Your task to perform on an android device: install app "Google Sheets" Image 0: 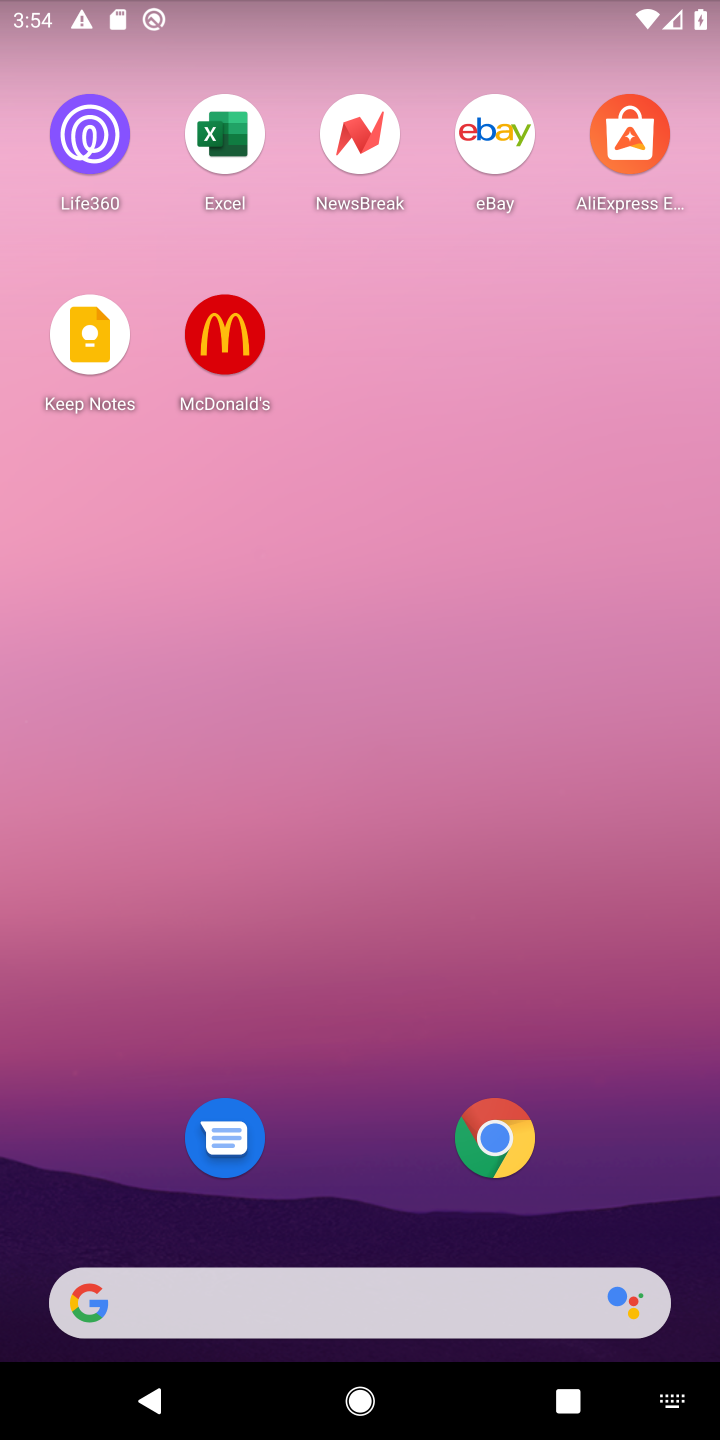
Step 0: drag from (365, 1222) to (352, 11)
Your task to perform on an android device: install app "Google Sheets" Image 1: 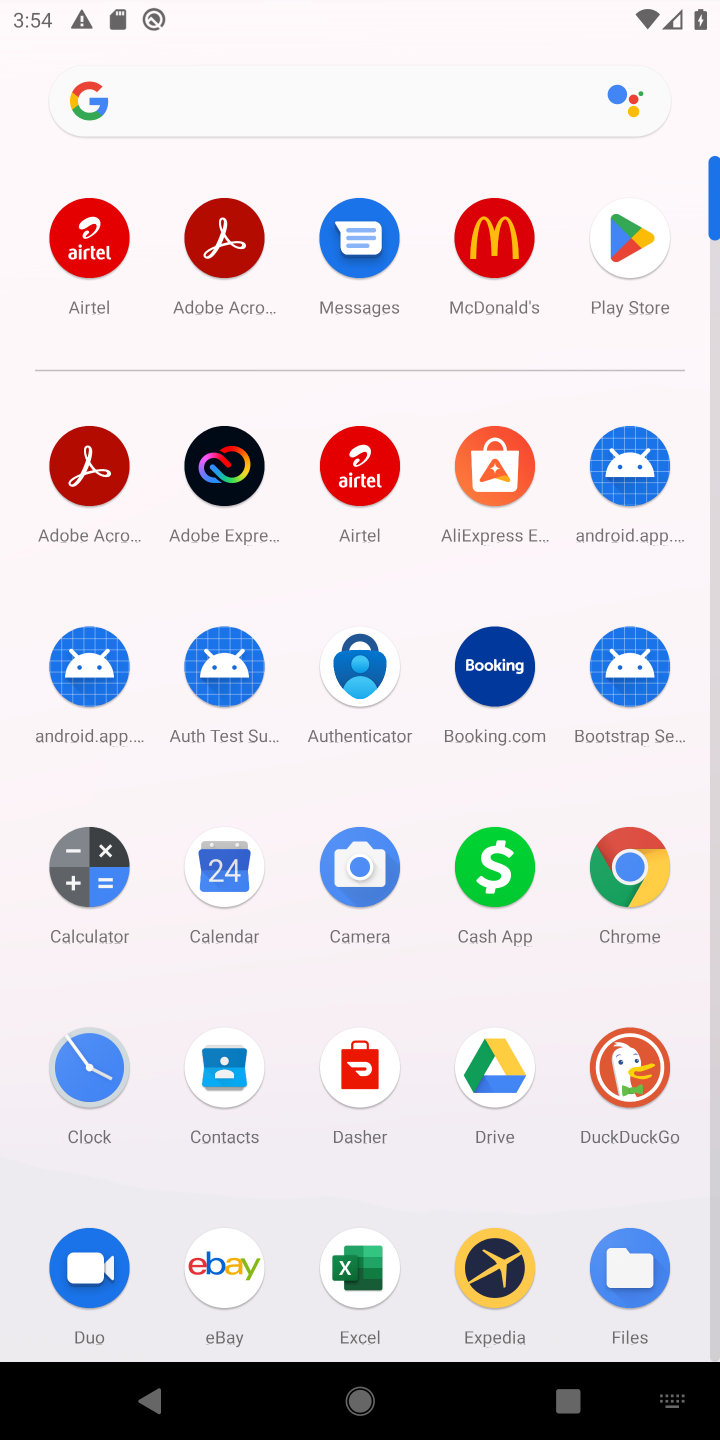
Step 1: click (627, 240)
Your task to perform on an android device: install app "Google Sheets" Image 2: 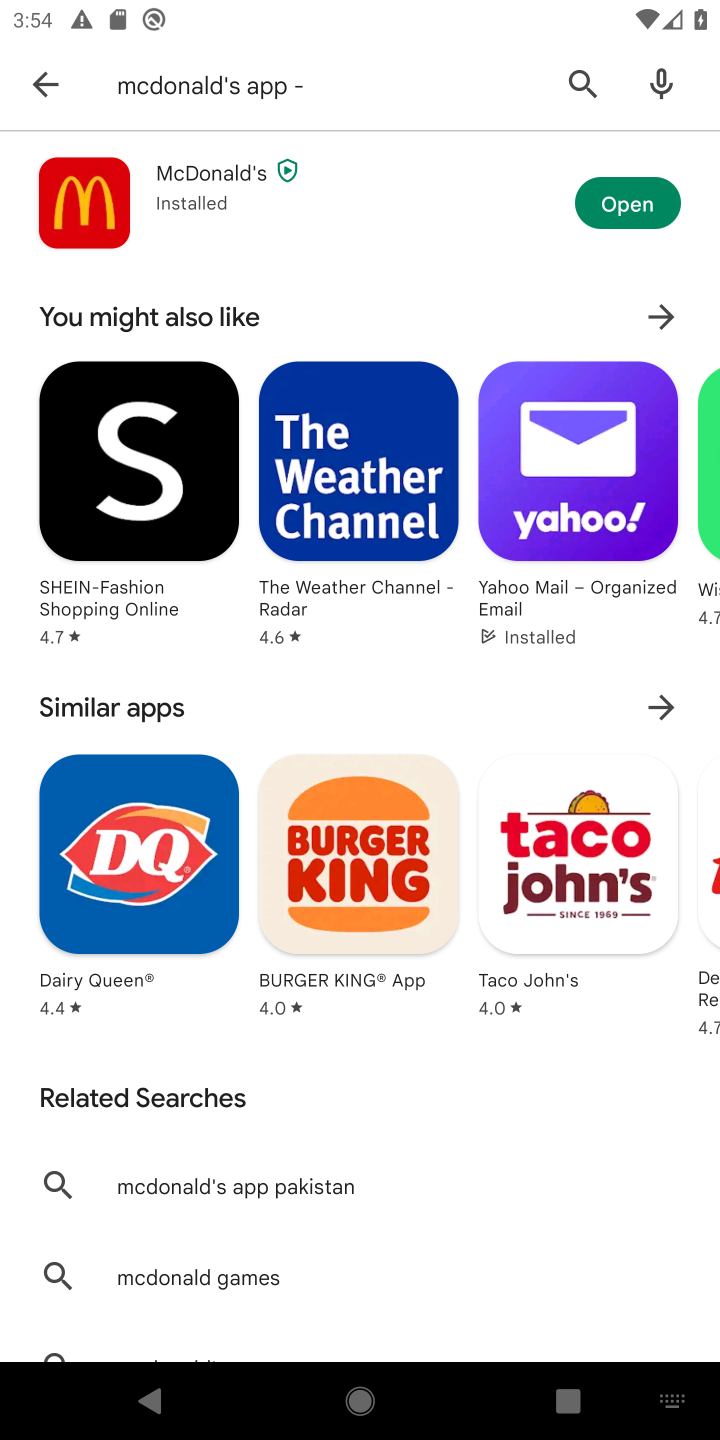
Step 2: click (581, 86)
Your task to perform on an android device: install app "Google Sheets" Image 3: 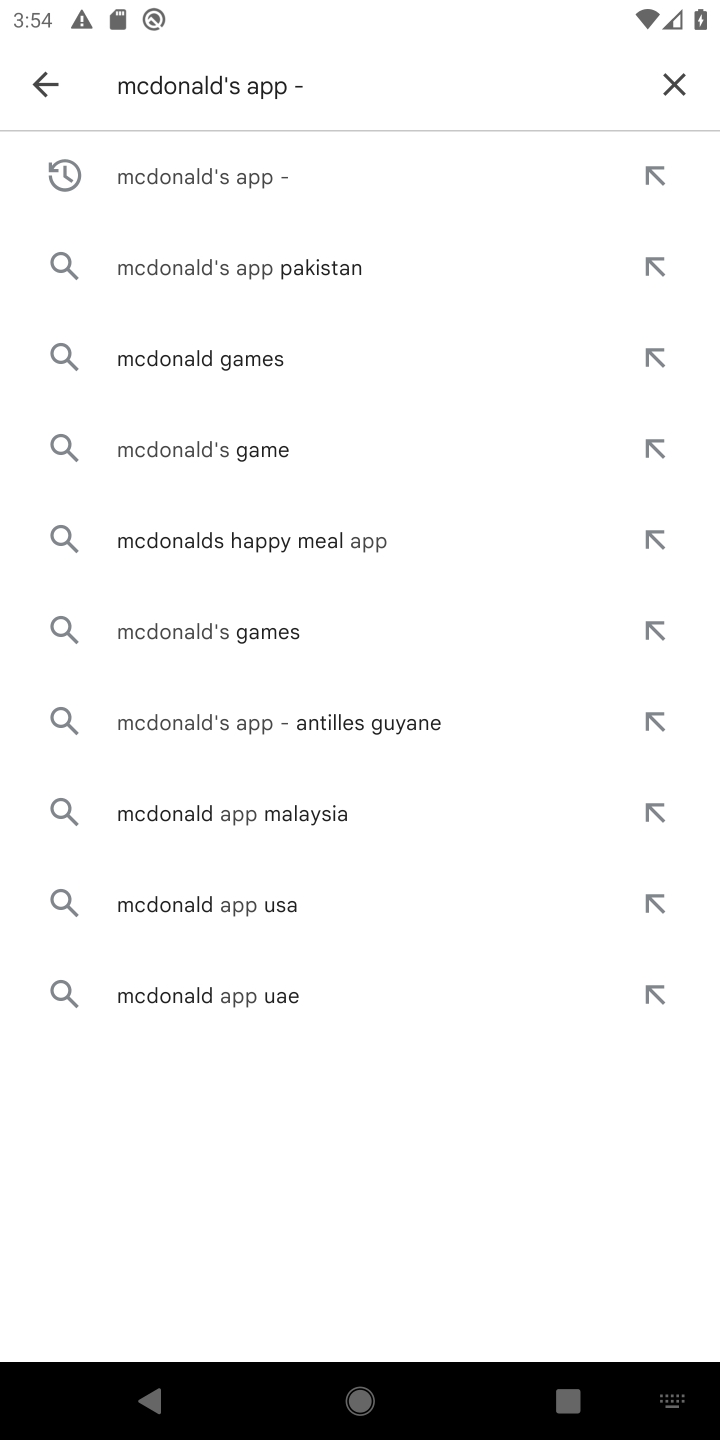
Step 3: click (686, 79)
Your task to perform on an android device: install app "Google Sheets" Image 4: 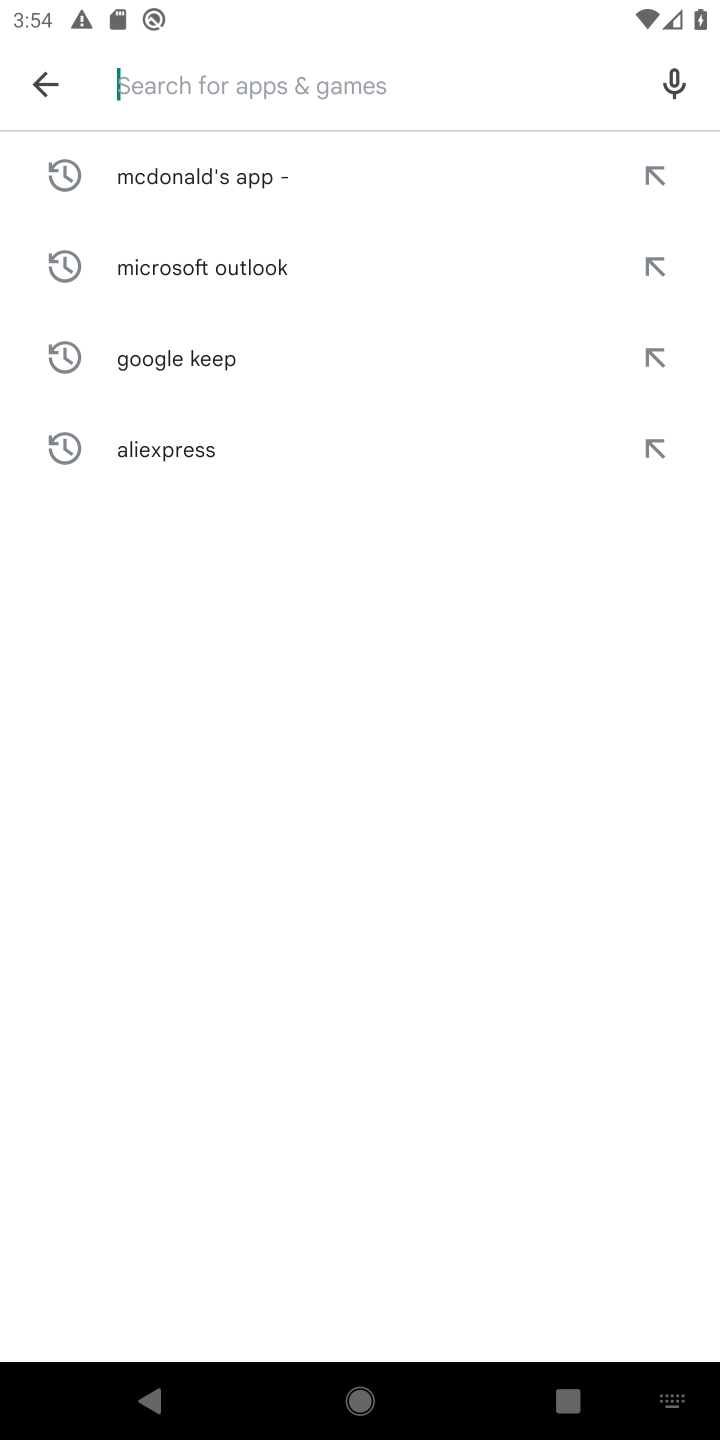
Step 4: type "Google Sheets"
Your task to perform on an android device: install app "Google Sheets" Image 5: 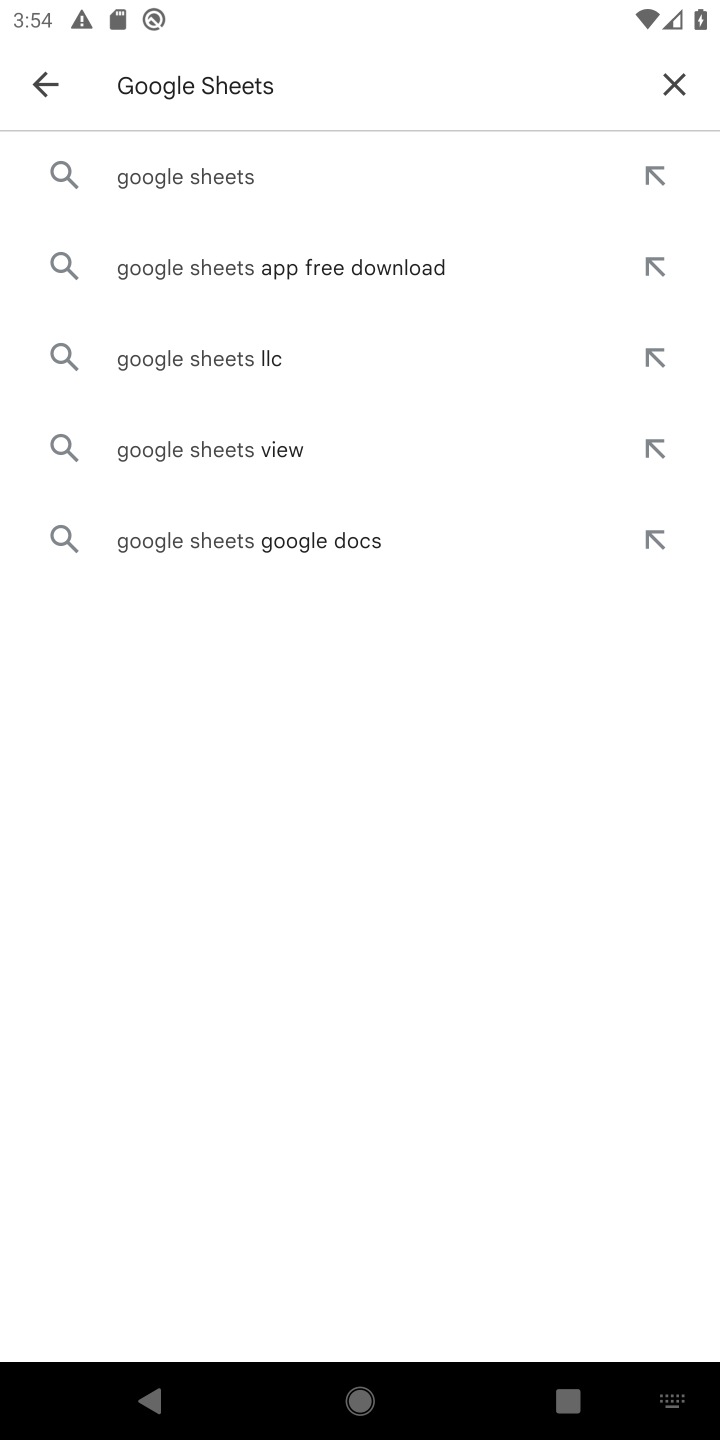
Step 5: click (193, 166)
Your task to perform on an android device: install app "Google Sheets" Image 6: 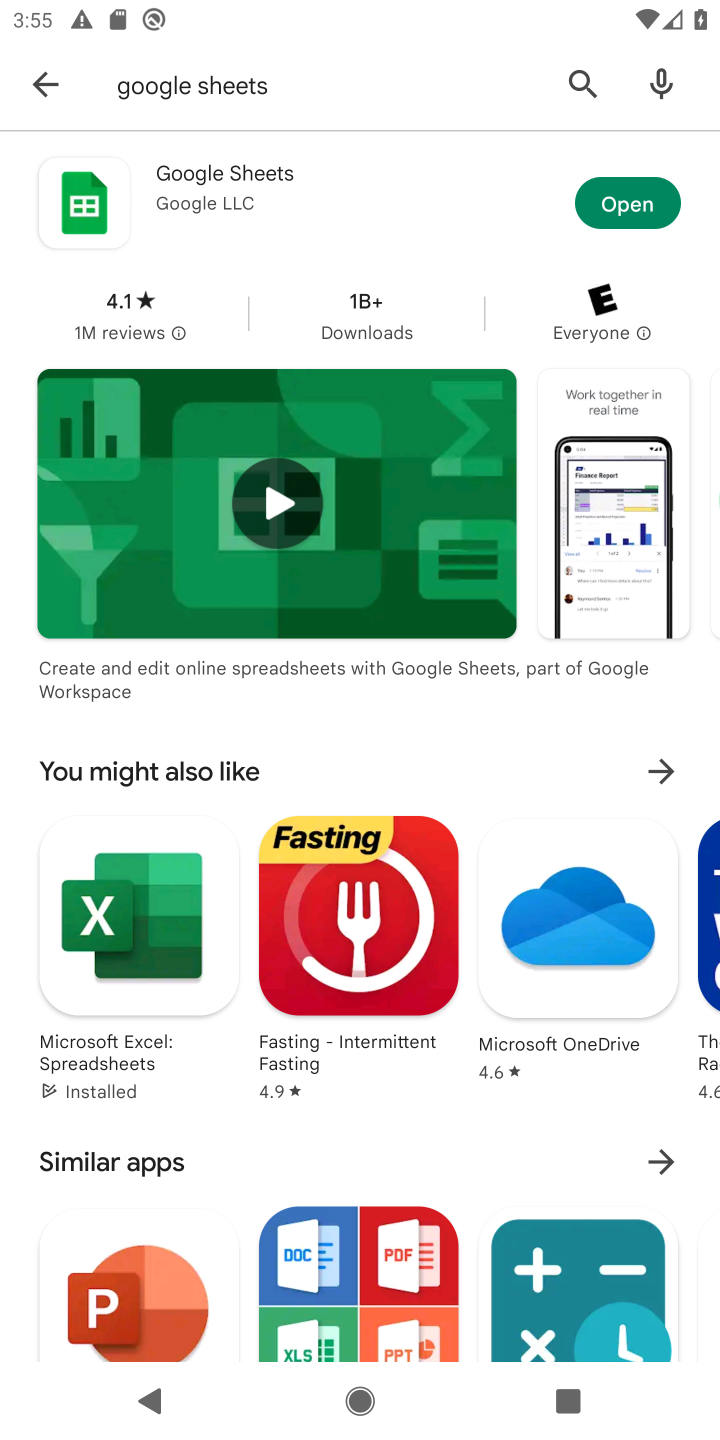
Step 6: task complete